Your task to perform on an android device: Open Yahoo.com Image 0: 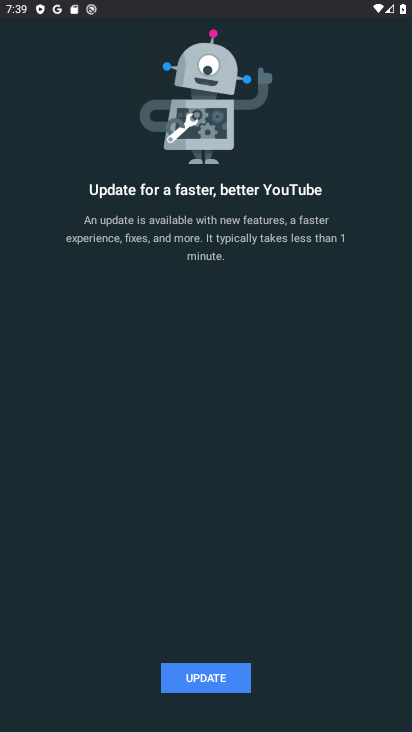
Step 0: press home button
Your task to perform on an android device: Open Yahoo.com Image 1: 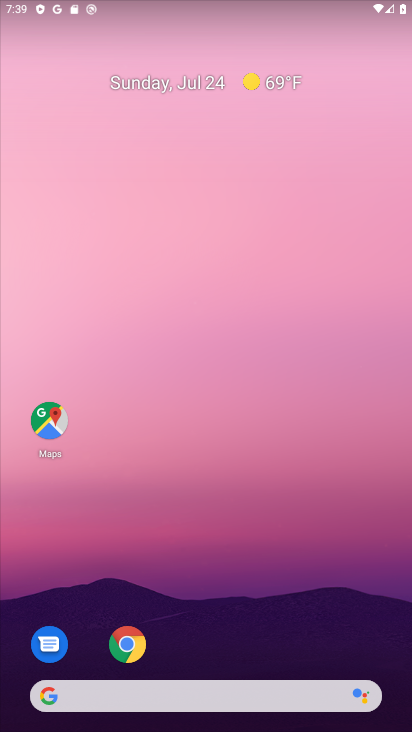
Step 1: click (132, 647)
Your task to perform on an android device: Open Yahoo.com Image 2: 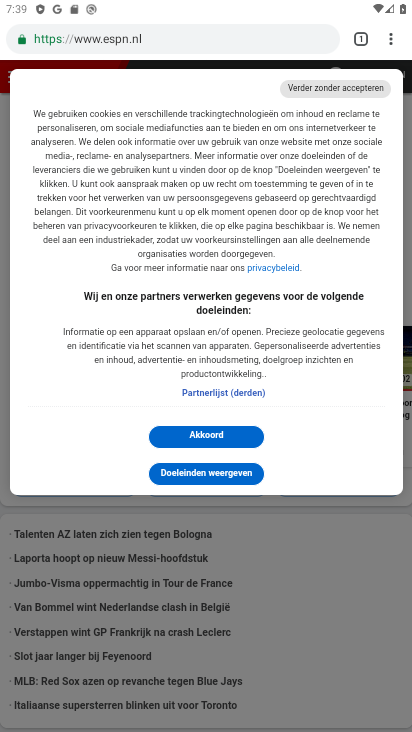
Step 2: click (359, 34)
Your task to perform on an android device: Open Yahoo.com Image 3: 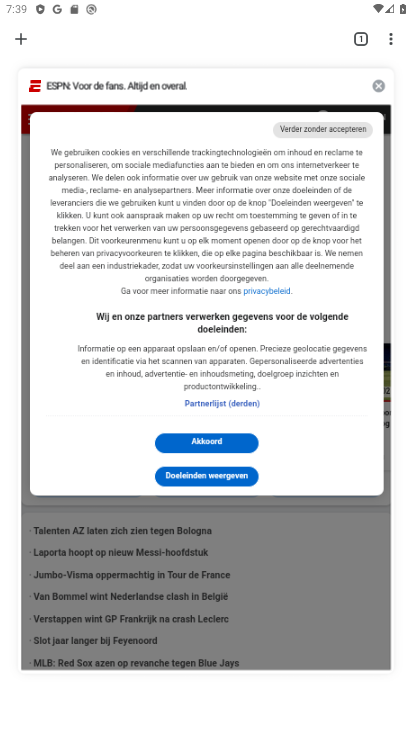
Step 3: click (25, 40)
Your task to perform on an android device: Open Yahoo.com Image 4: 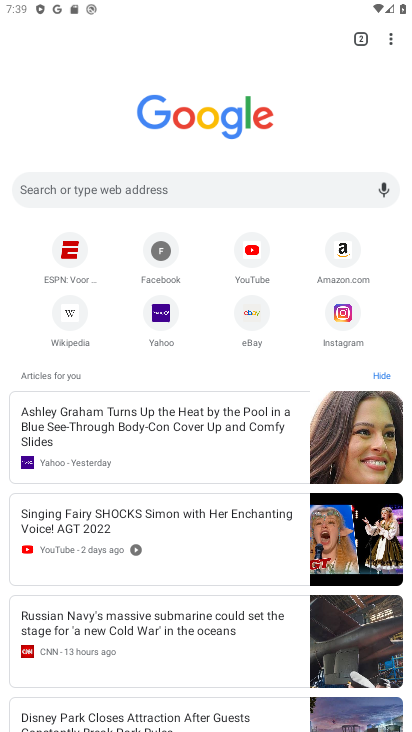
Step 4: click (164, 324)
Your task to perform on an android device: Open Yahoo.com Image 5: 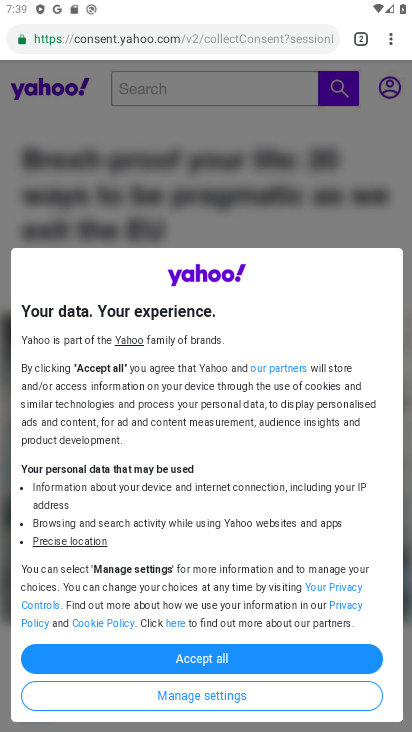
Step 5: task complete